Your task to perform on an android device: open app "Flipkart Online Shopping App" (install if not already installed) Image 0: 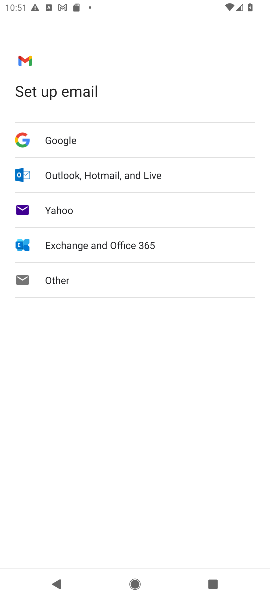
Step 0: press back button
Your task to perform on an android device: open app "Flipkart Online Shopping App" (install if not already installed) Image 1: 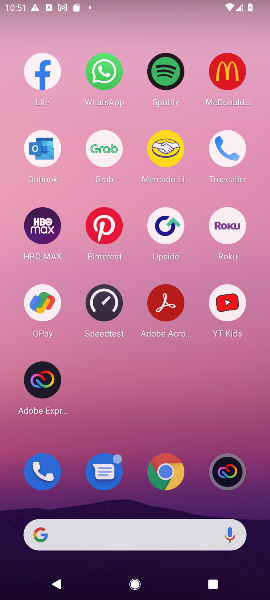
Step 1: press home button
Your task to perform on an android device: open app "Flipkart Online Shopping App" (install if not already installed) Image 2: 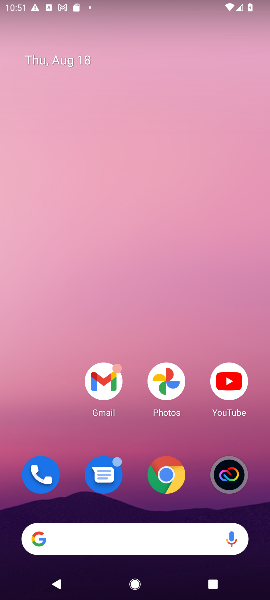
Step 2: drag from (120, 497) to (163, 9)
Your task to perform on an android device: open app "Flipkart Online Shopping App" (install if not already installed) Image 3: 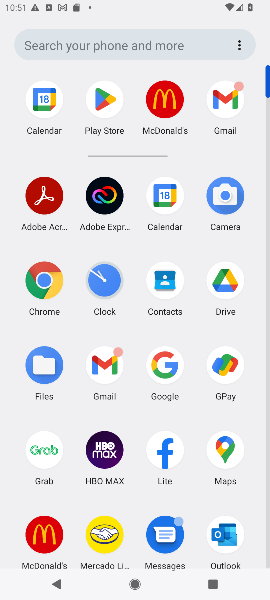
Step 3: click (89, 101)
Your task to perform on an android device: open app "Flipkart Online Shopping App" (install if not already installed) Image 4: 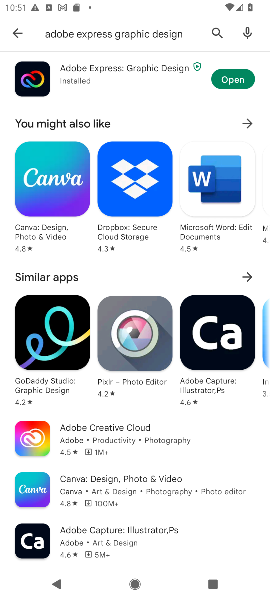
Step 4: click (7, 37)
Your task to perform on an android device: open app "Flipkart Online Shopping App" (install if not already installed) Image 5: 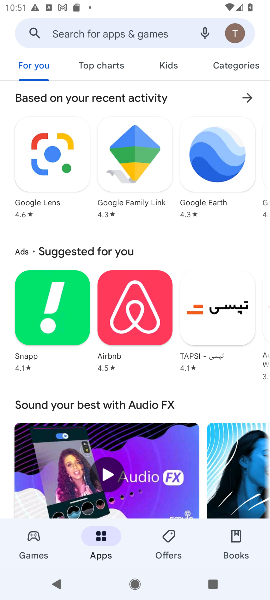
Step 5: click (58, 34)
Your task to perform on an android device: open app "Flipkart Online Shopping App" (install if not already installed) Image 6: 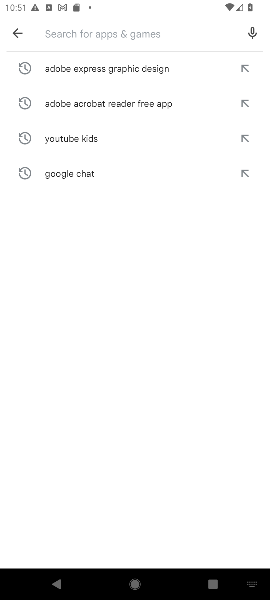
Step 6: type "Flipkart Online Shopping App"
Your task to perform on an android device: open app "Flipkart Online Shopping App" (install if not already installed) Image 7: 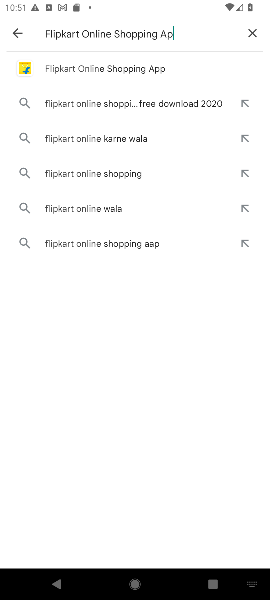
Step 7: type ""
Your task to perform on an android device: open app "Flipkart Online Shopping App" (install if not already installed) Image 8: 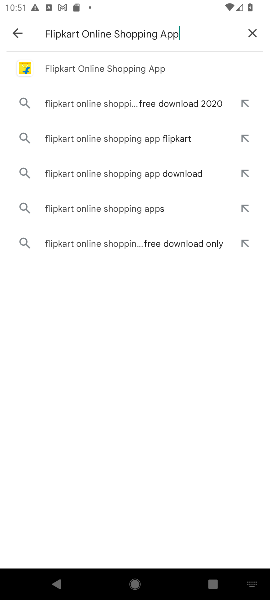
Step 8: click (81, 70)
Your task to perform on an android device: open app "Flipkart Online Shopping App" (install if not already installed) Image 9: 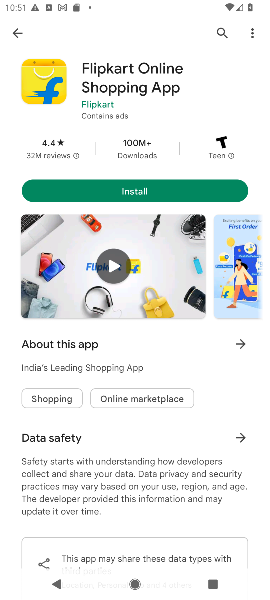
Step 9: click (180, 189)
Your task to perform on an android device: open app "Flipkart Online Shopping App" (install if not already installed) Image 10: 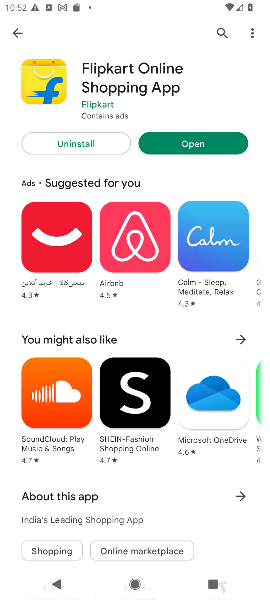
Step 10: click (205, 146)
Your task to perform on an android device: open app "Flipkart Online Shopping App" (install if not already installed) Image 11: 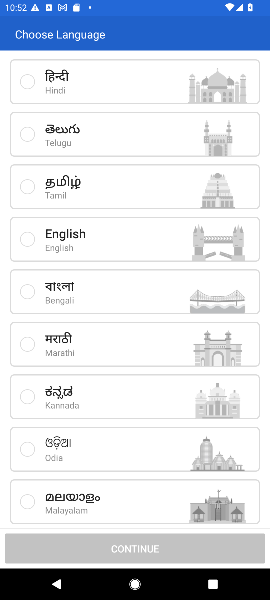
Step 11: task complete